Your task to perform on an android device: turn on data saver in the chrome app Image 0: 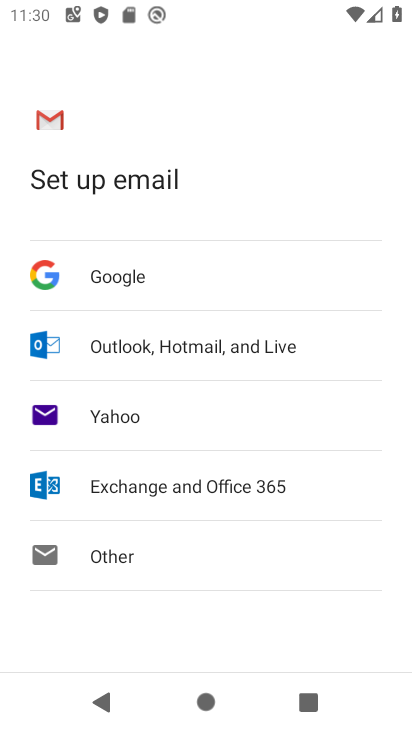
Step 0: press home button
Your task to perform on an android device: turn on data saver in the chrome app Image 1: 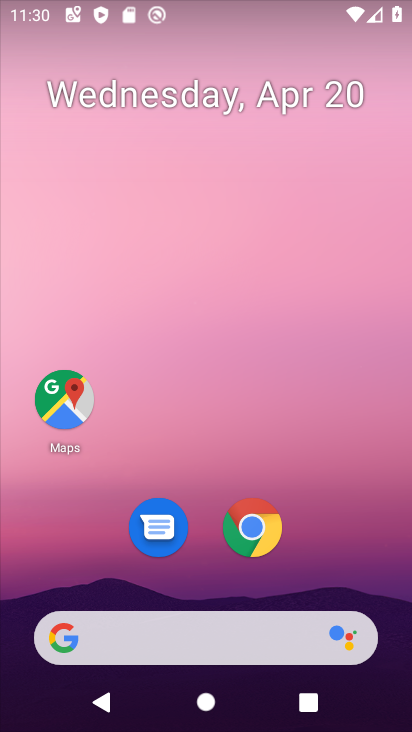
Step 1: drag from (307, 553) to (278, 54)
Your task to perform on an android device: turn on data saver in the chrome app Image 2: 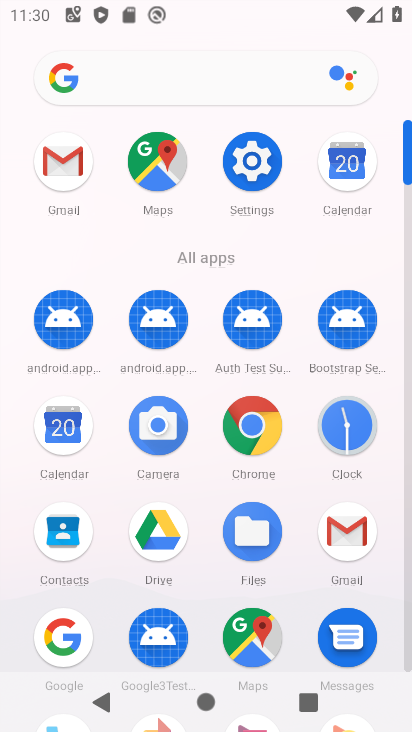
Step 2: click (241, 425)
Your task to perform on an android device: turn on data saver in the chrome app Image 3: 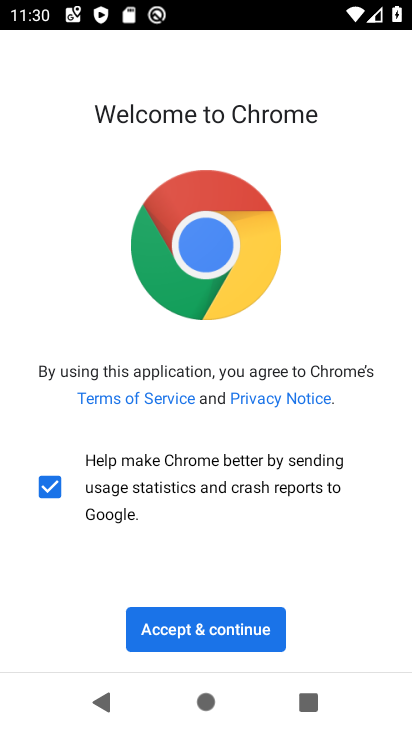
Step 3: click (189, 619)
Your task to perform on an android device: turn on data saver in the chrome app Image 4: 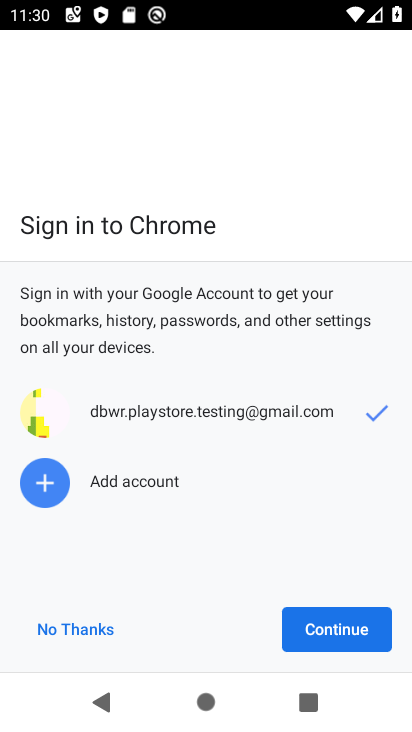
Step 4: click (334, 635)
Your task to perform on an android device: turn on data saver in the chrome app Image 5: 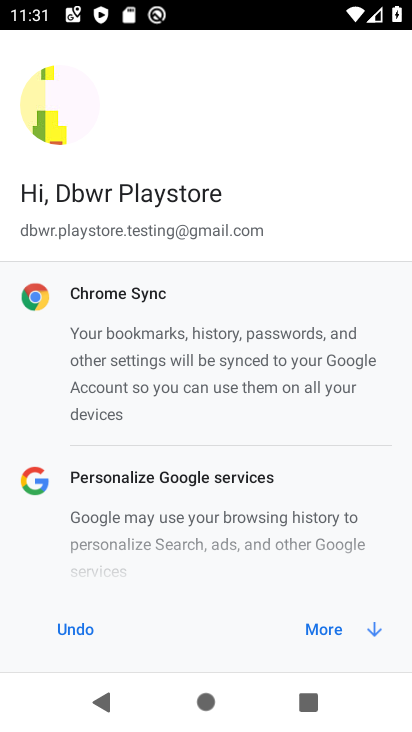
Step 5: click (334, 635)
Your task to perform on an android device: turn on data saver in the chrome app Image 6: 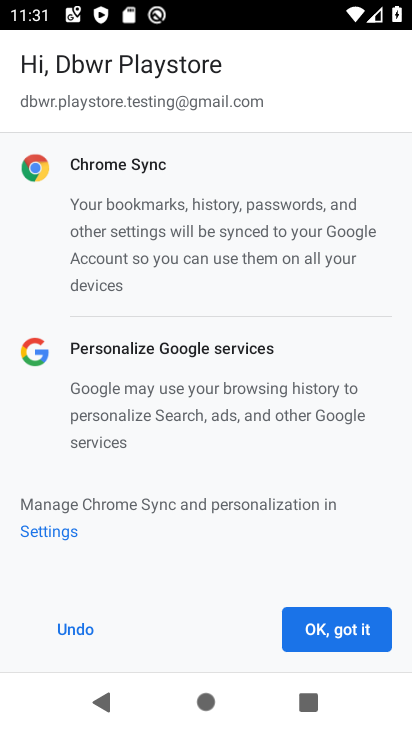
Step 6: click (334, 635)
Your task to perform on an android device: turn on data saver in the chrome app Image 7: 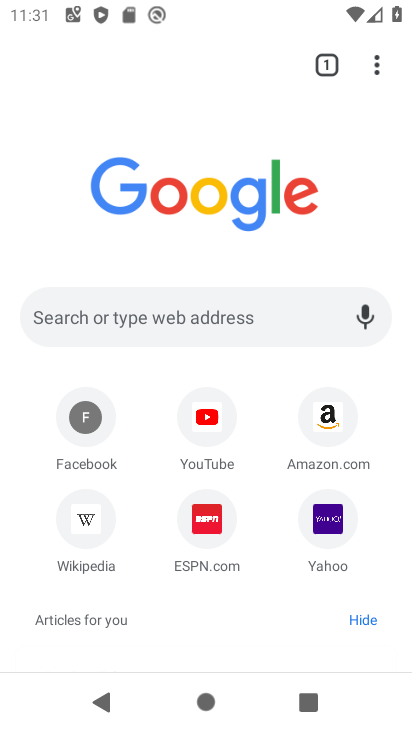
Step 7: click (379, 58)
Your task to perform on an android device: turn on data saver in the chrome app Image 8: 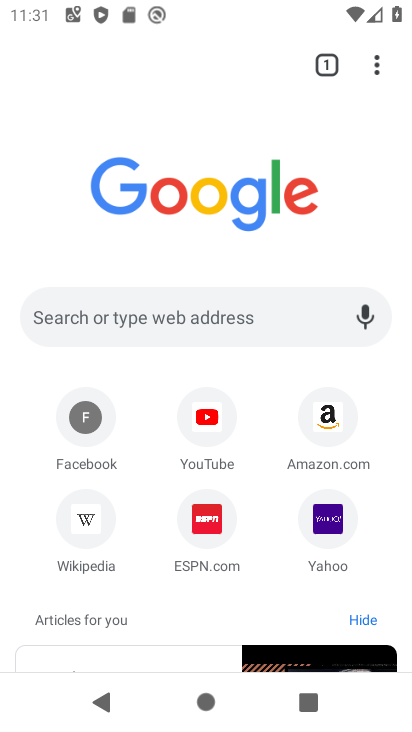
Step 8: drag from (370, 66) to (170, 543)
Your task to perform on an android device: turn on data saver in the chrome app Image 9: 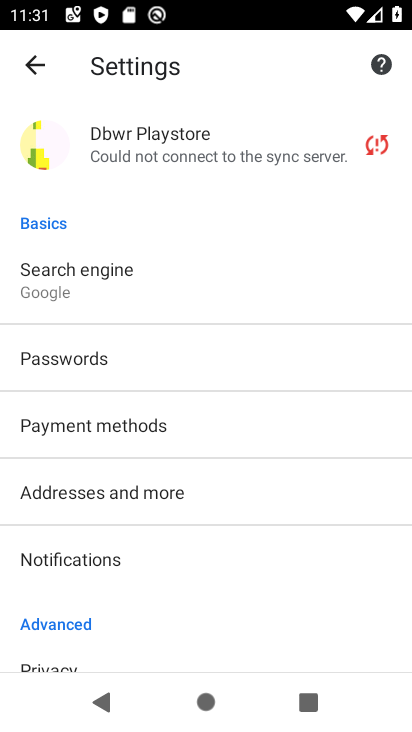
Step 9: drag from (218, 572) to (253, 141)
Your task to perform on an android device: turn on data saver in the chrome app Image 10: 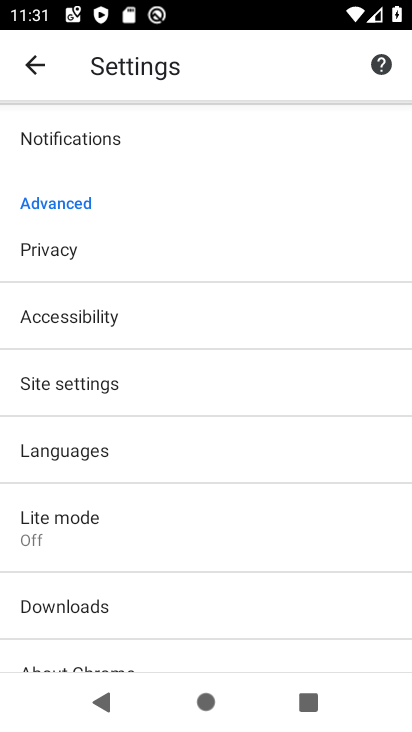
Step 10: click (102, 529)
Your task to perform on an android device: turn on data saver in the chrome app Image 11: 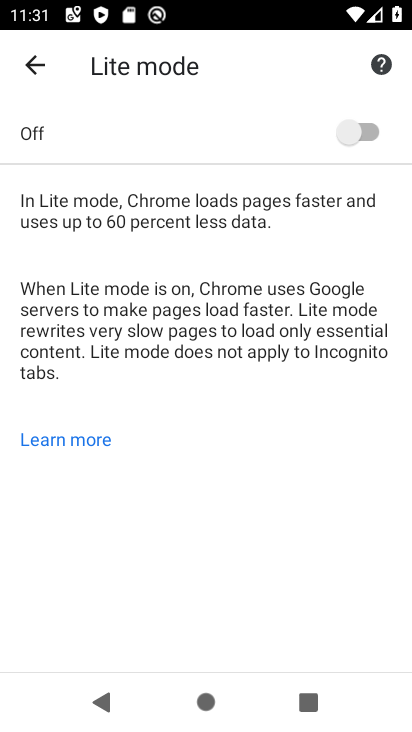
Step 11: click (364, 141)
Your task to perform on an android device: turn on data saver in the chrome app Image 12: 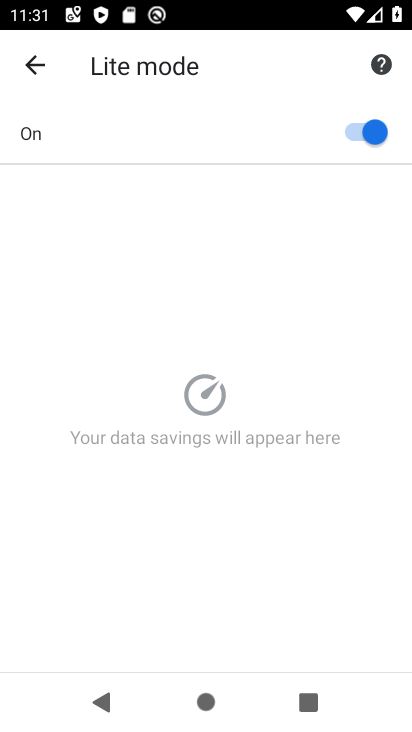
Step 12: task complete